Your task to perform on an android device: check data usage Image 0: 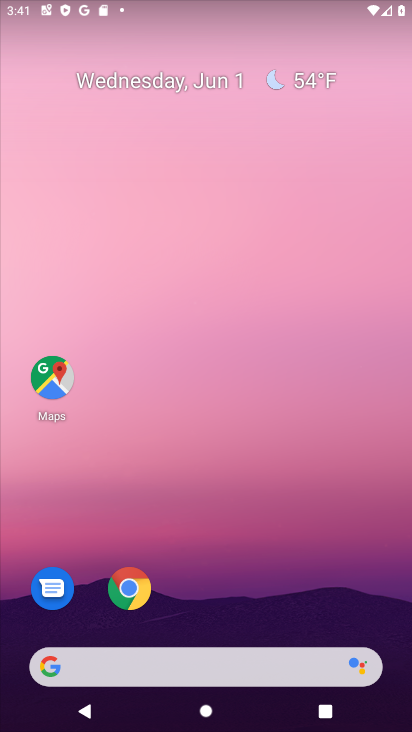
Step 0: drag from (201, 575) to (290, 63)
Your task to perform on an android device: check data usage Image 1: 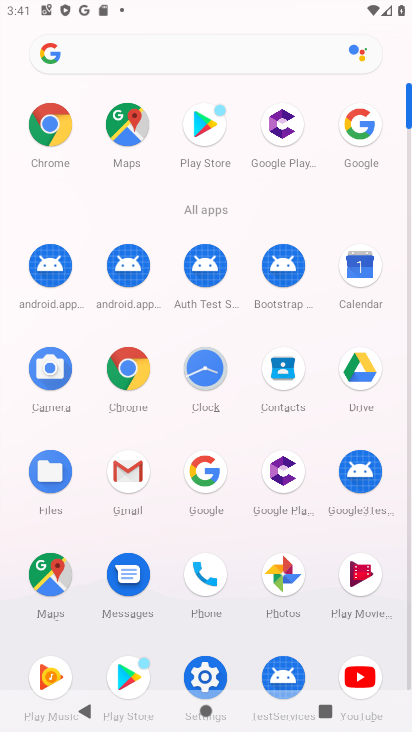
Step 1: drag from (193, 448) to (249, 166)
Your task to perform on an android device: check data usage Image 2: 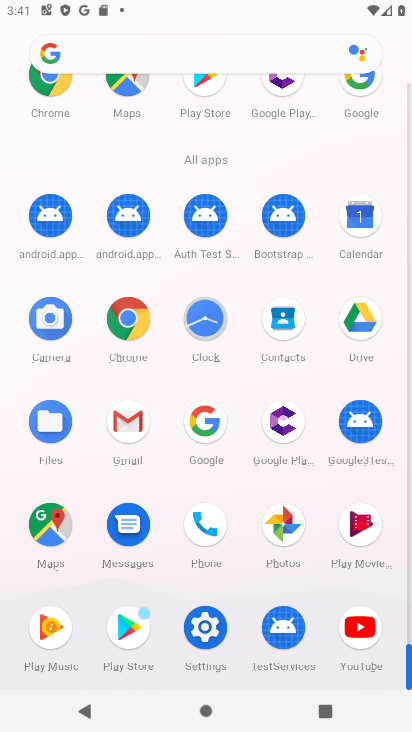
Step 2: click (219, 622)
Your task to perform on an android device: check data usage Image 3: 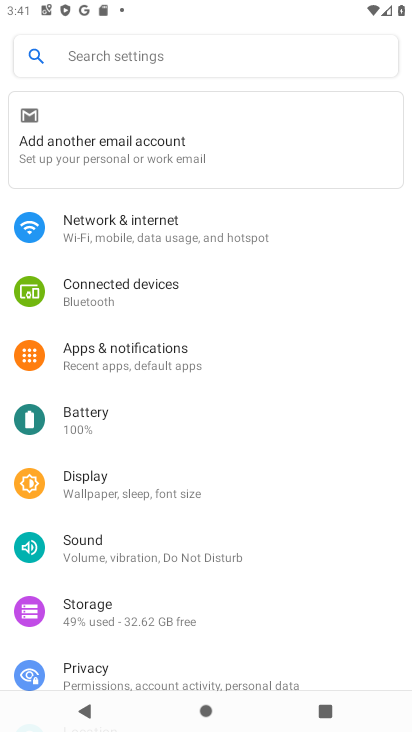
Step 3: click (192, 231)
Your task to perform on an android device: check data usage Image 4: 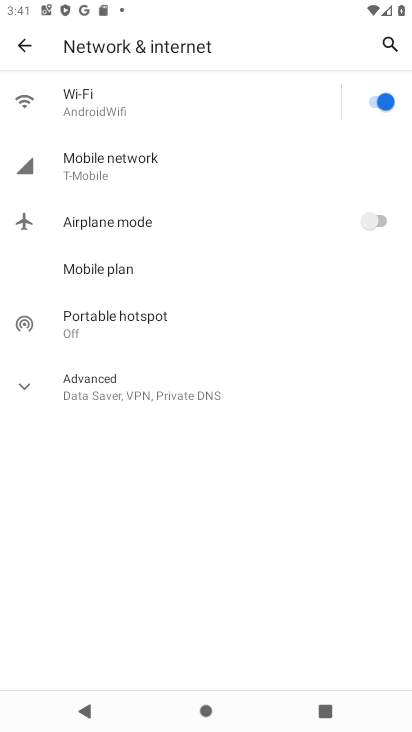
Step 4: click (186, 175)
Your task to perform on an android device: check data usage Image 5: 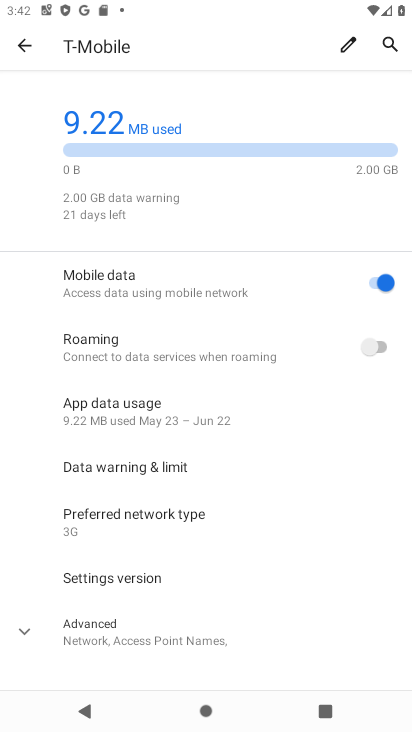
Step 5: click (201, 412)
Your task to perform on an android device: check data usage Image 6: 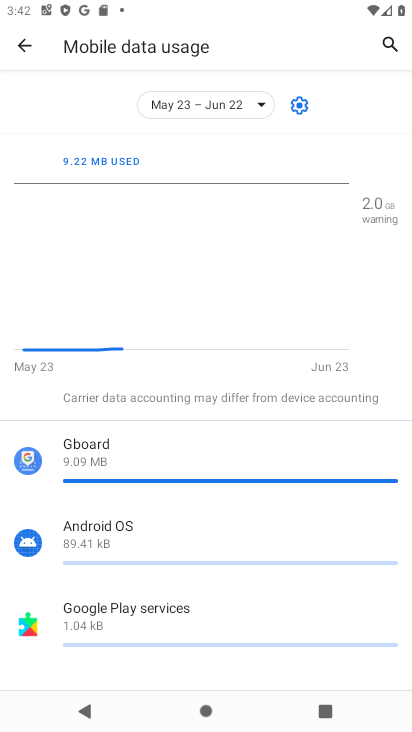
Step 6: task complete